Your task to perform on an android device: open sync settings in chrome Image 0: 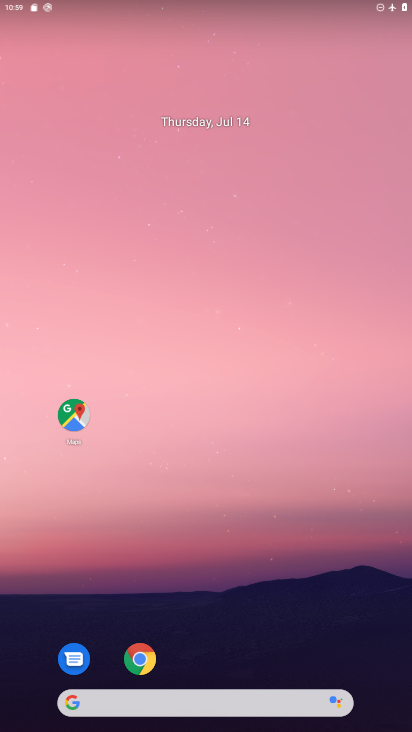
Step 0: drag from (248, 627) to (223, 166)
Your task to perform on an android device: open sync settings in chrome Image 1: 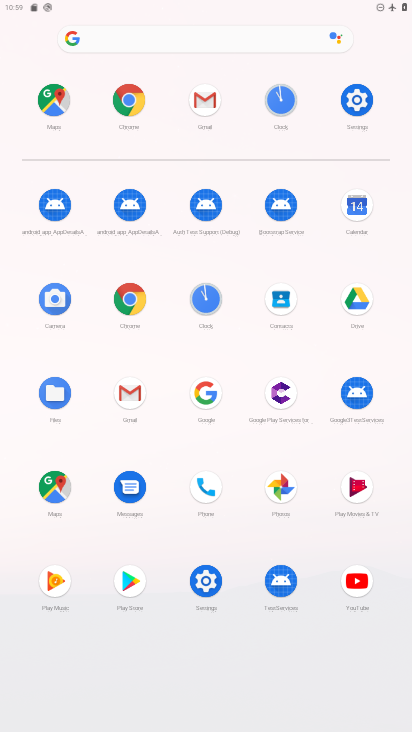
Step 1: click (129, 296)
Your task to perform on an android device: open sync settings in chrome Image 2: 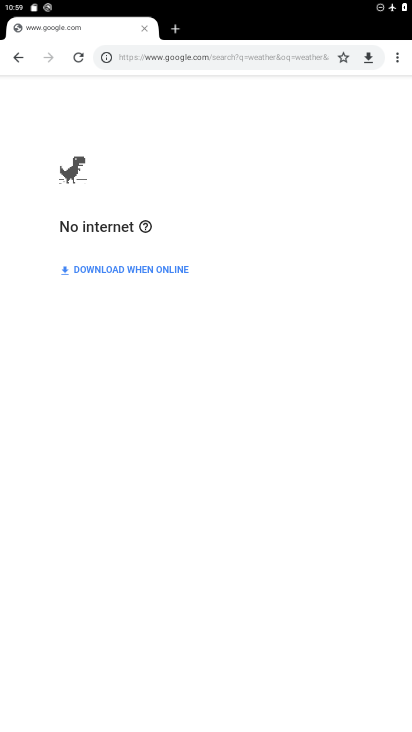
Step 2: drag from (401, 54) to (310, 354)
Your task to perform on an android device: open sync settings in chrome Image 3: 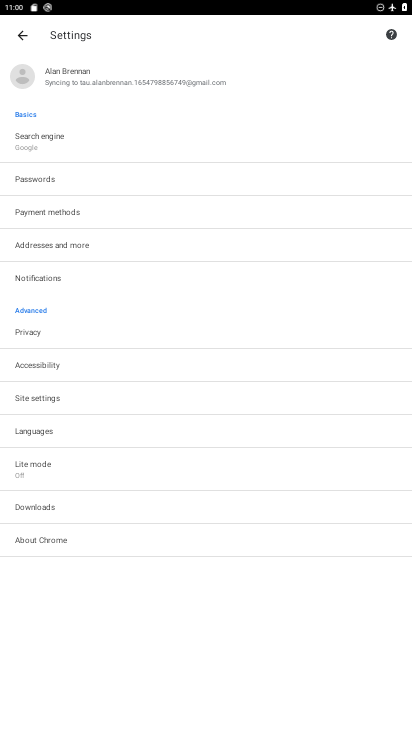
Step 3: click (141, 86)
Your task to perform on an android device: open sync settings in chrome Image 4: 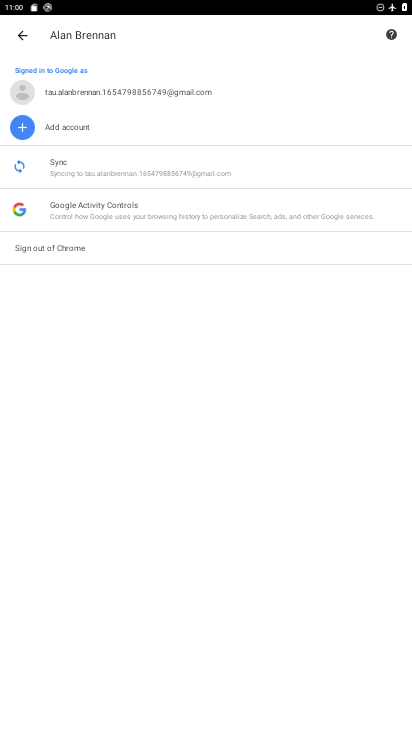
Step 4: click (204, 166)
Your task to perform on an android device: open sync settings in chrome Image 5: 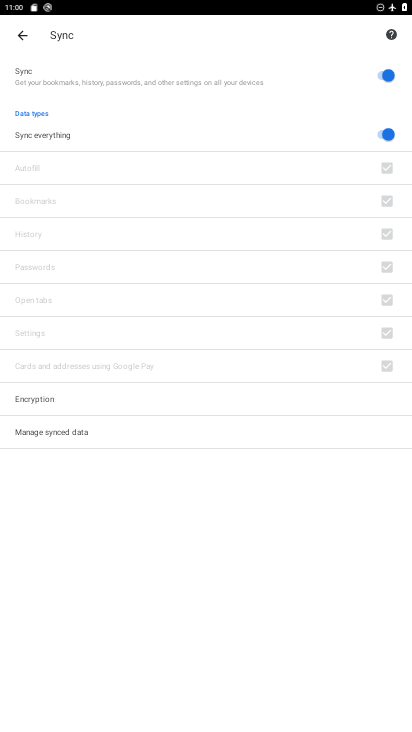
Step 5: task complete